Your task to perform on an android device: Show me productivity apps on the Play Store Image 0: 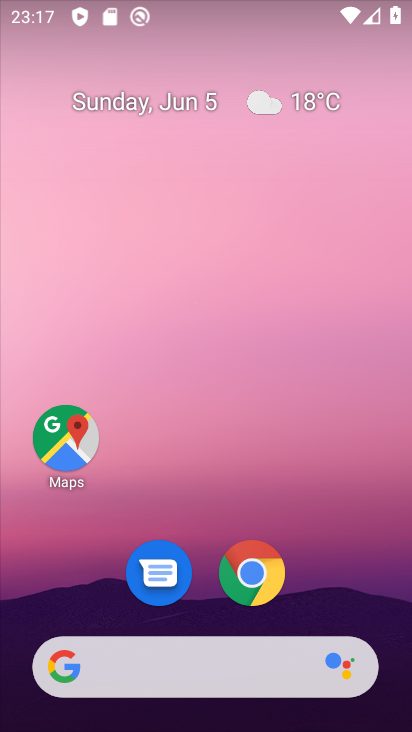
Step 0: drag from (181, 667) to (277, 87)
Your task to perform on an android device: Show me productivity apps on the Play Store Image 1: 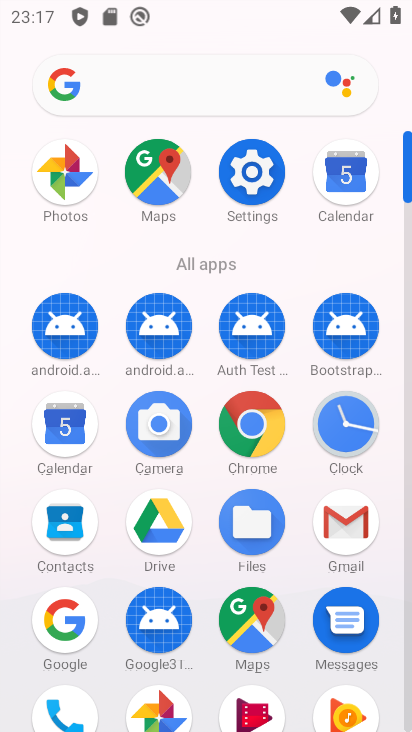
Step 1: drag from (222, 530) to (300, 105)
Your task to perform on an android device: Show me productivity apps on the Play Store Image 2: 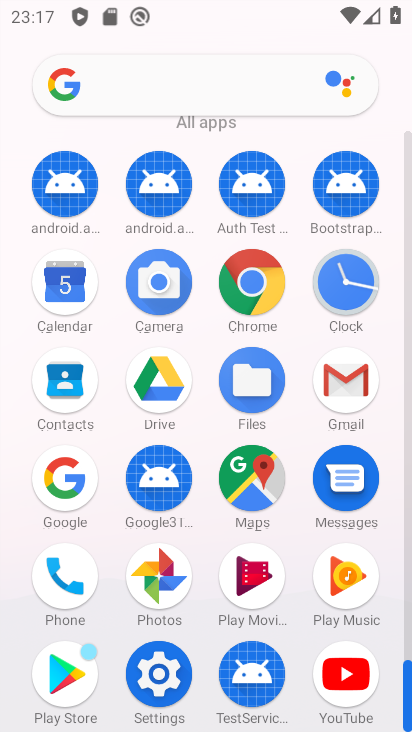
Step 2: click (56, 686)
Your task to perform on an android device: Show me productivity apps on the Play Store Image 3: 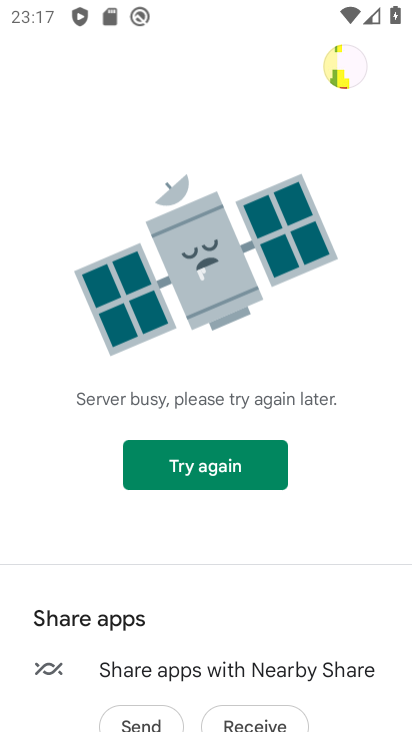
Step 3: click (233, 462)
Your task to perform on an android device: Show me productivity apps on the Play Store Image 4: 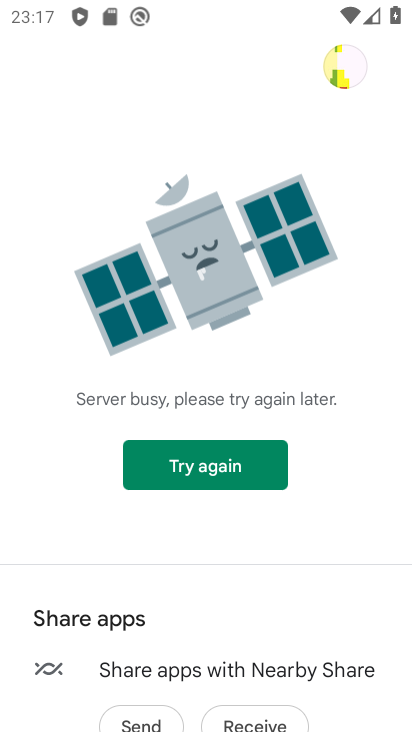
Step 4: task complete